Your task to perform on an android device: choose inbox layout in the gmail app Image 0: 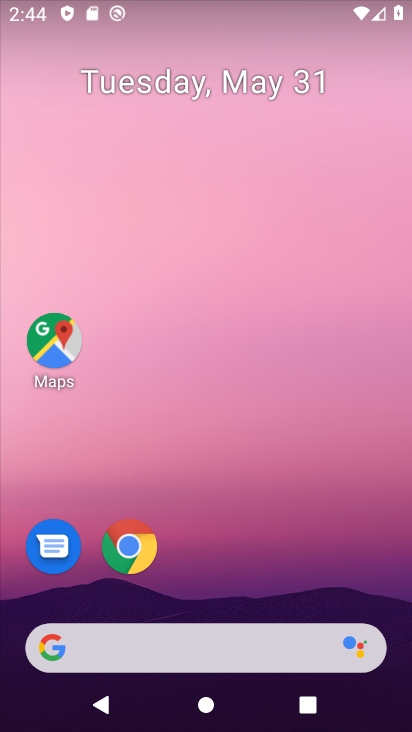
Step 0: drag from (241, 533) to (186, 35)
Your task to perform on an android device: choose inbox layout in the gmail app Image 1: 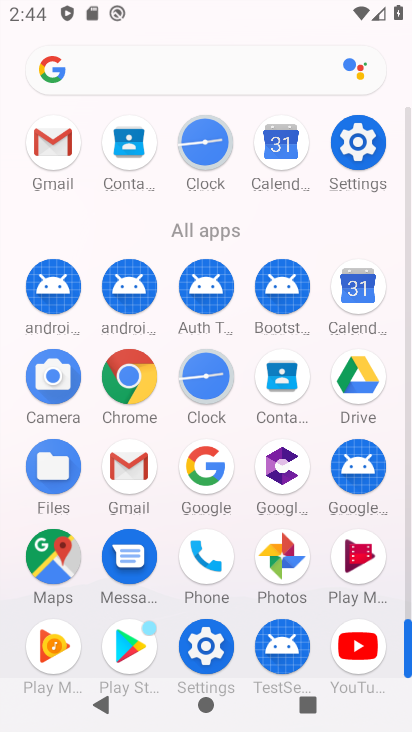
Step 1: click (61, 147)
Your task to perform on an android device: choose inbox layout in the gmail app Image 2: 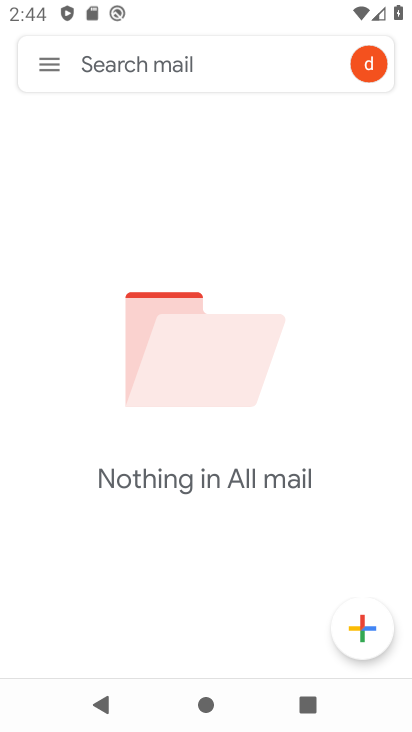
Step 2: click (49, 48)
Your task to perform on an android device: choose inbox layout in the gmail app Image 3: 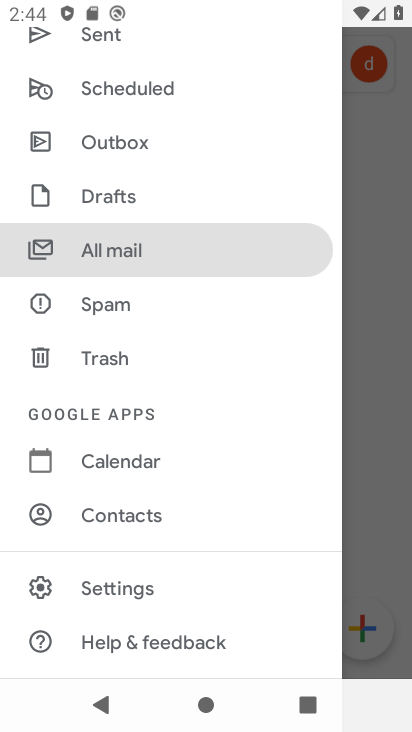
Step 3: click (124, 569)
Your task to perform on an android device: choose inbox layout in the gmail app Image 4: 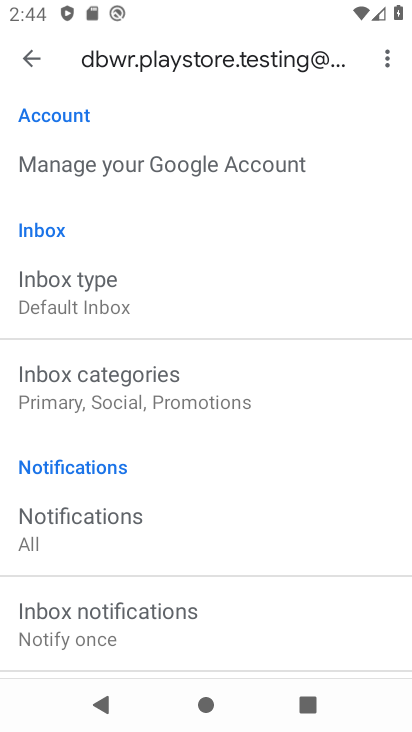
Step 4: click (125, 279)
Your task to perform on an android device: choose inbox layout in the gmail app Image 5: 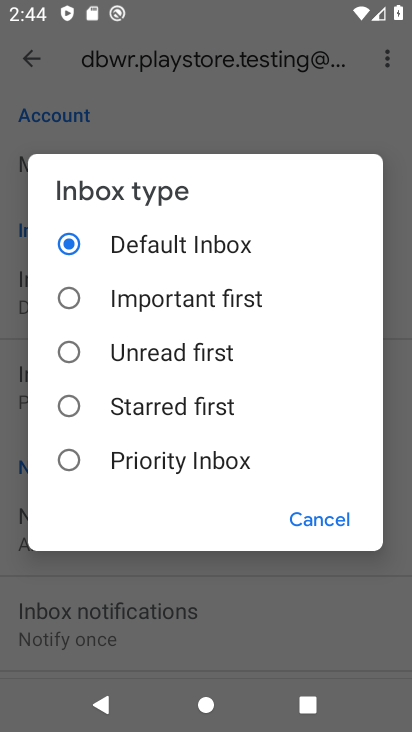
Step 5: click (122, 299)
Your task to perform on an android device: choose inbox layout in the gmail app Image 6: 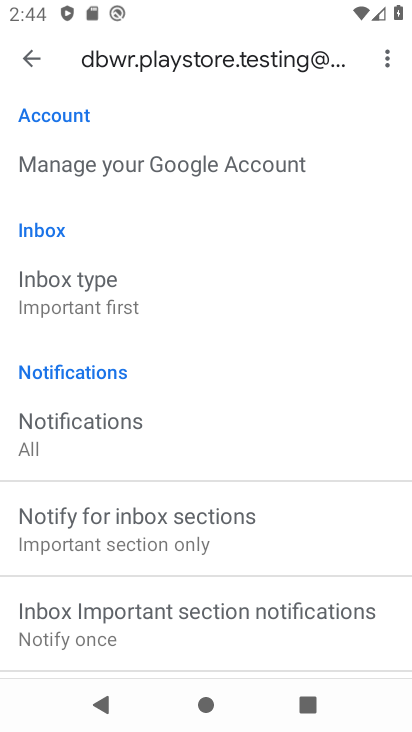
Step 6: task complete